Your task to perform on an android device: open app "Indeed Job Search" (install if not already installed) Image 0: 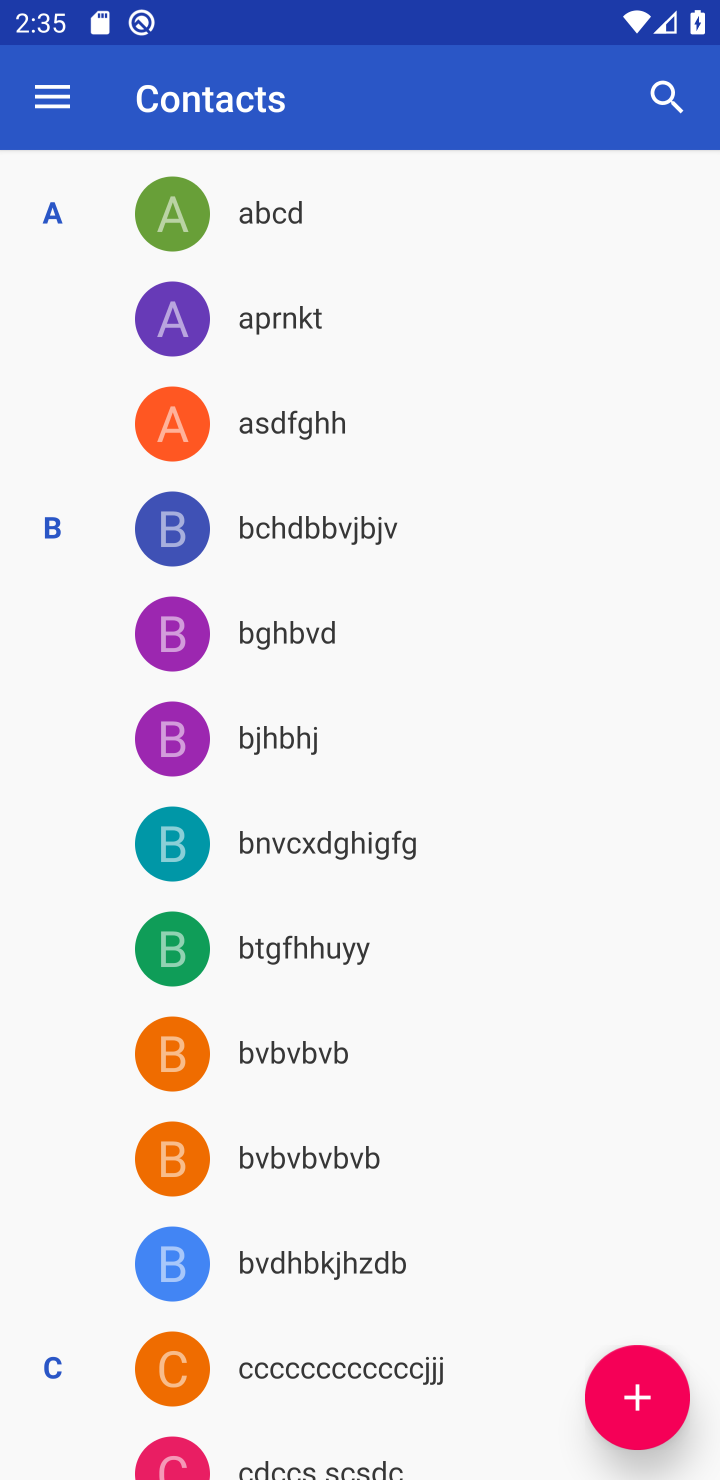
Step 0: press home button
Your task to perform on an android device: open app "Indeed Job Search" (install if not already installed) Image 1: 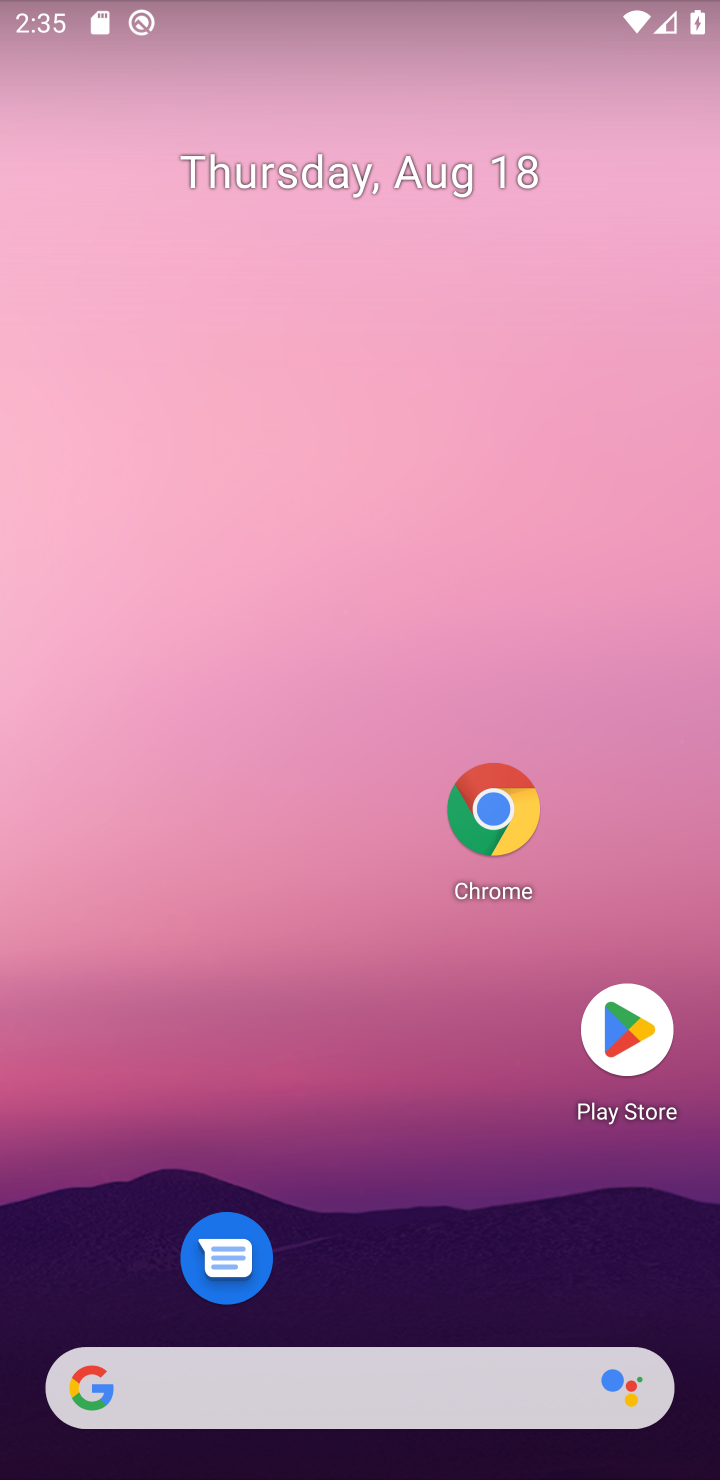
Step 1: click (623, 1000)
Your task to perform on an android device: open app "Indeed Job Search" (install if not already installed) Image 2: 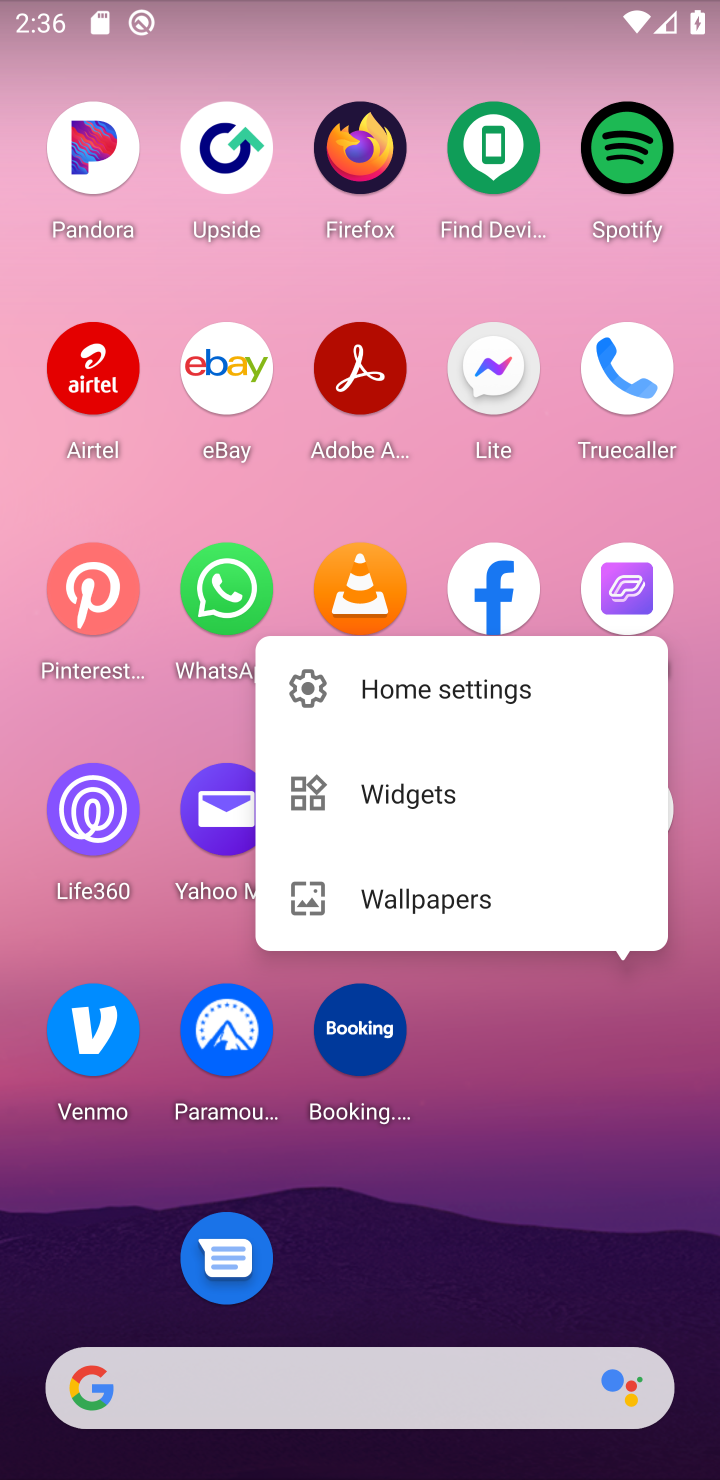
Step 2: press home button
Your task to perform on an android device: open app "Indeed Job Search" (install if not already installed) Image 3: 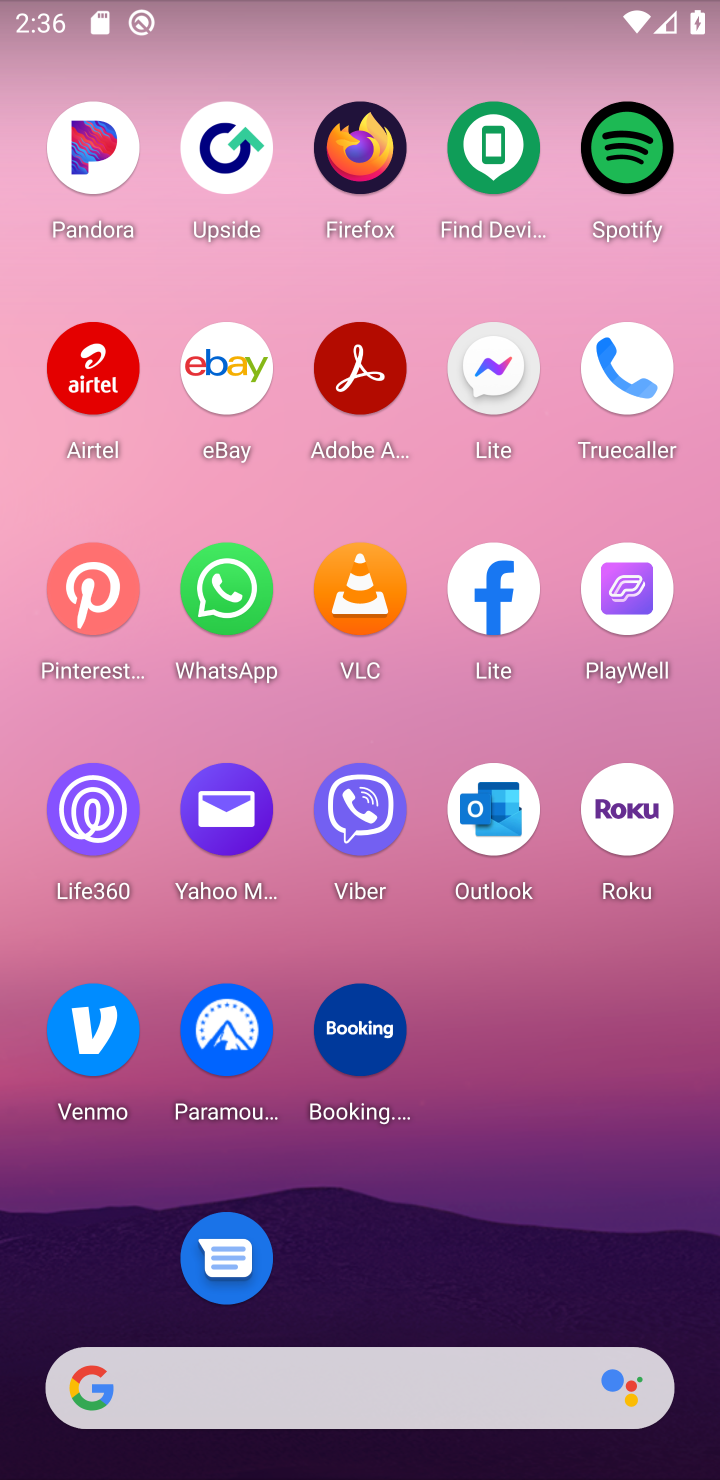
Step 3: press home button
Your task to perform on an android device: open app "Indeed Job Search" (install if not already installed) Image 4: 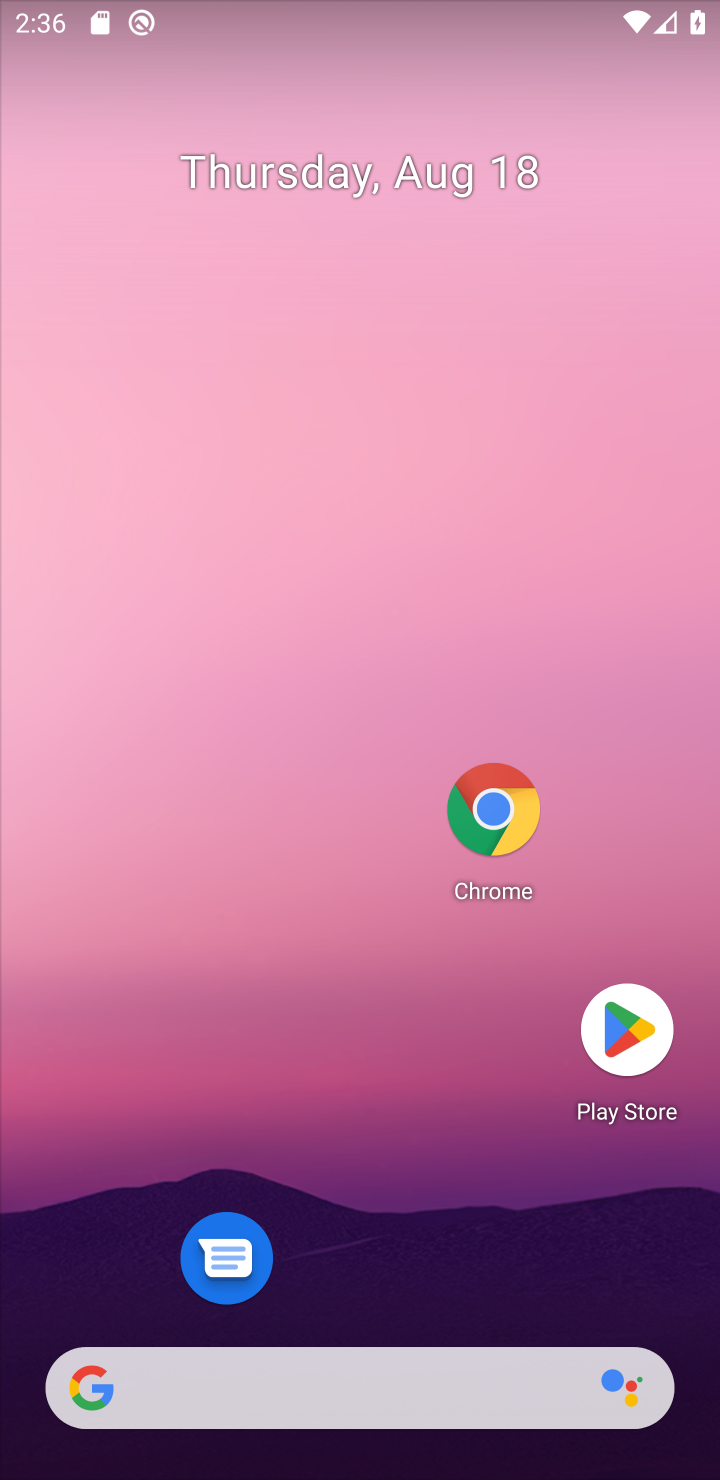
Step 4: click (614, 1011)
Your task to perform on an android device: open app "Indeed Job Search" (install if not already installed) Image 5: 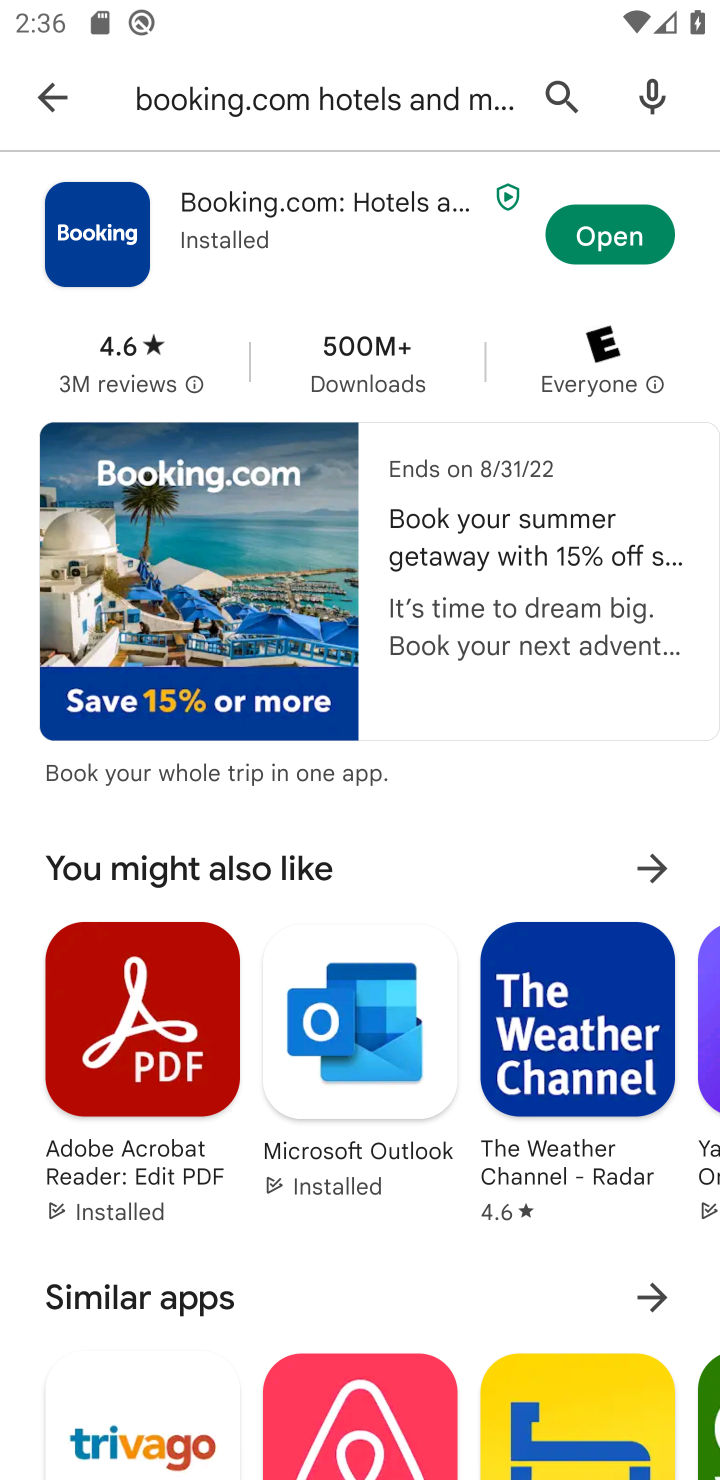
Step 5: click (60, 98)
Your task to perform on an android device: open app "Indeed Job Search" (install if not already installed) Image 6: 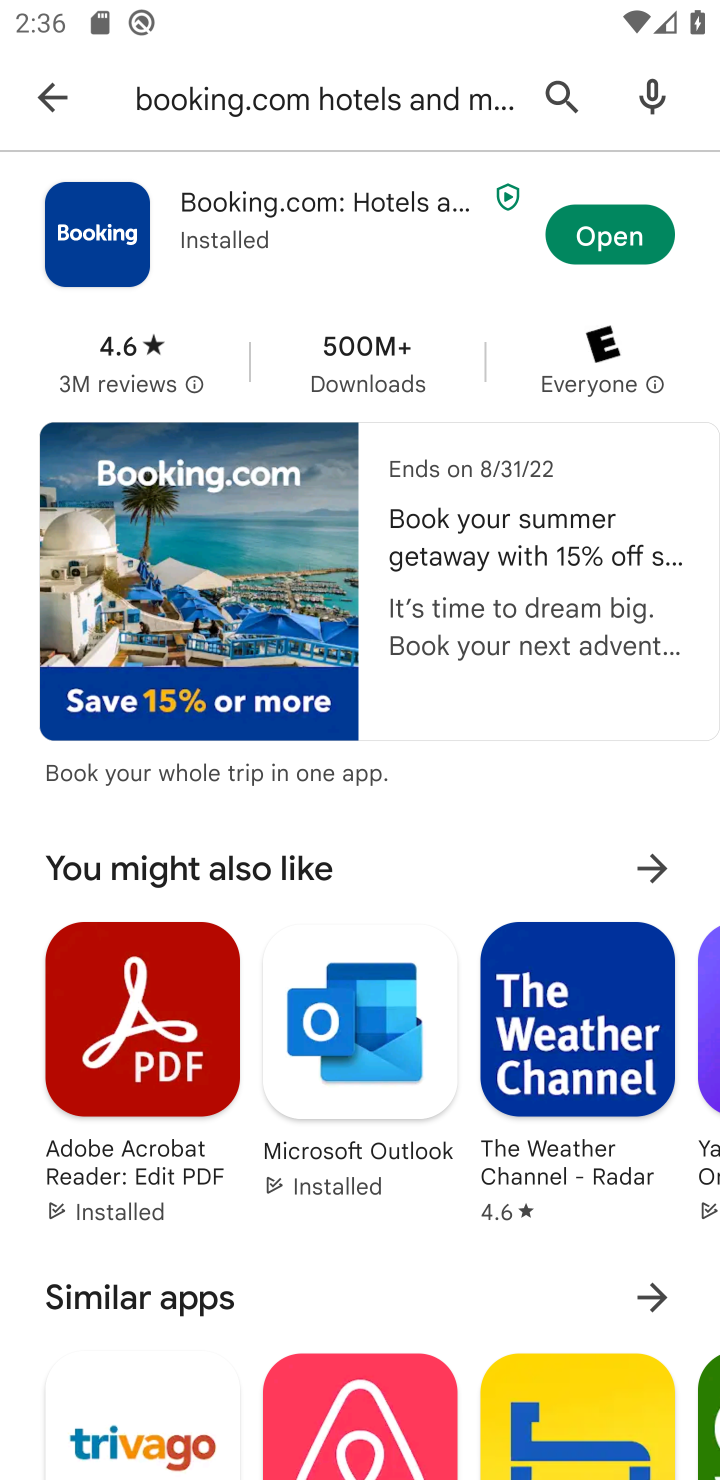
Step 6: click (545, 90)
Your task to perform on an android device: open app "Indeed Job Search" (install if not already installed) Image 7: 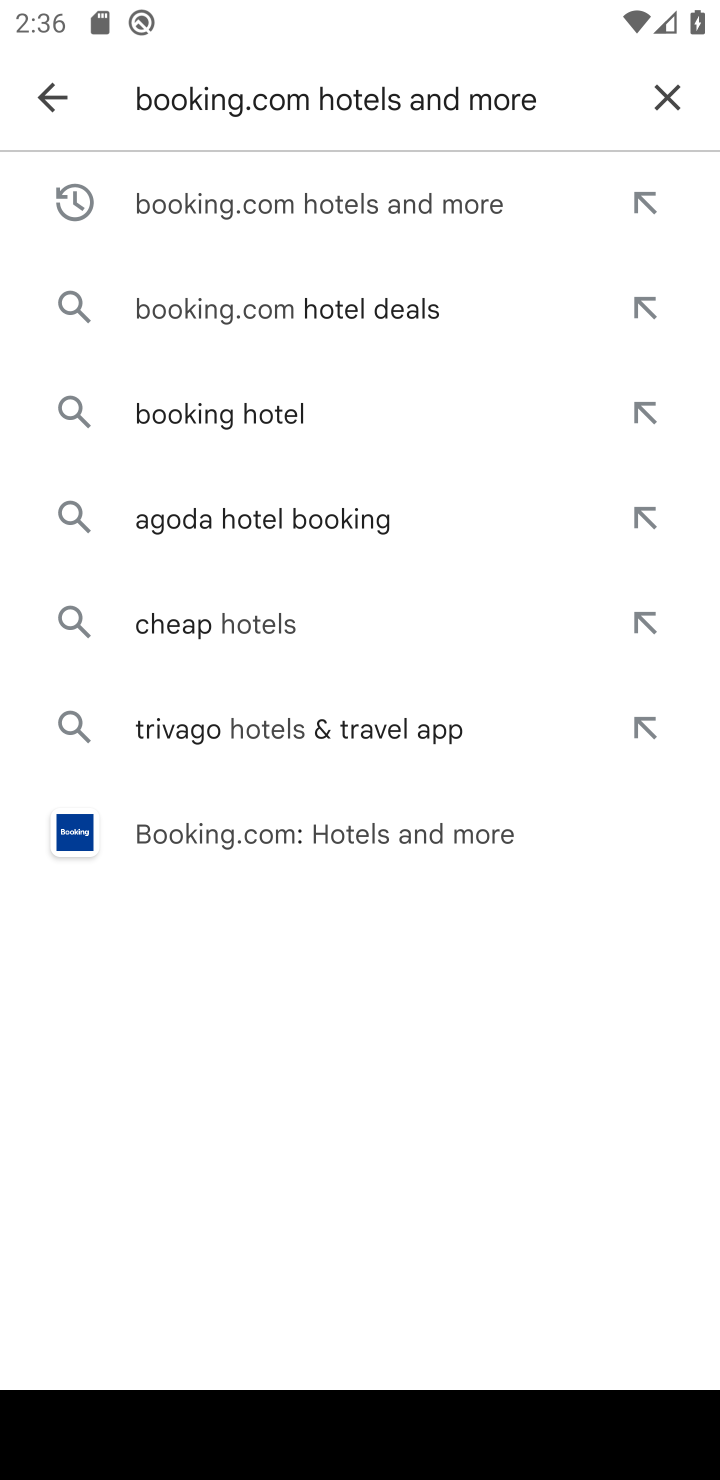
Step 7: click (670, 94)
Your task to perform on an android device: open app "Indeed Job Search" (install if not already installed) Image 8: 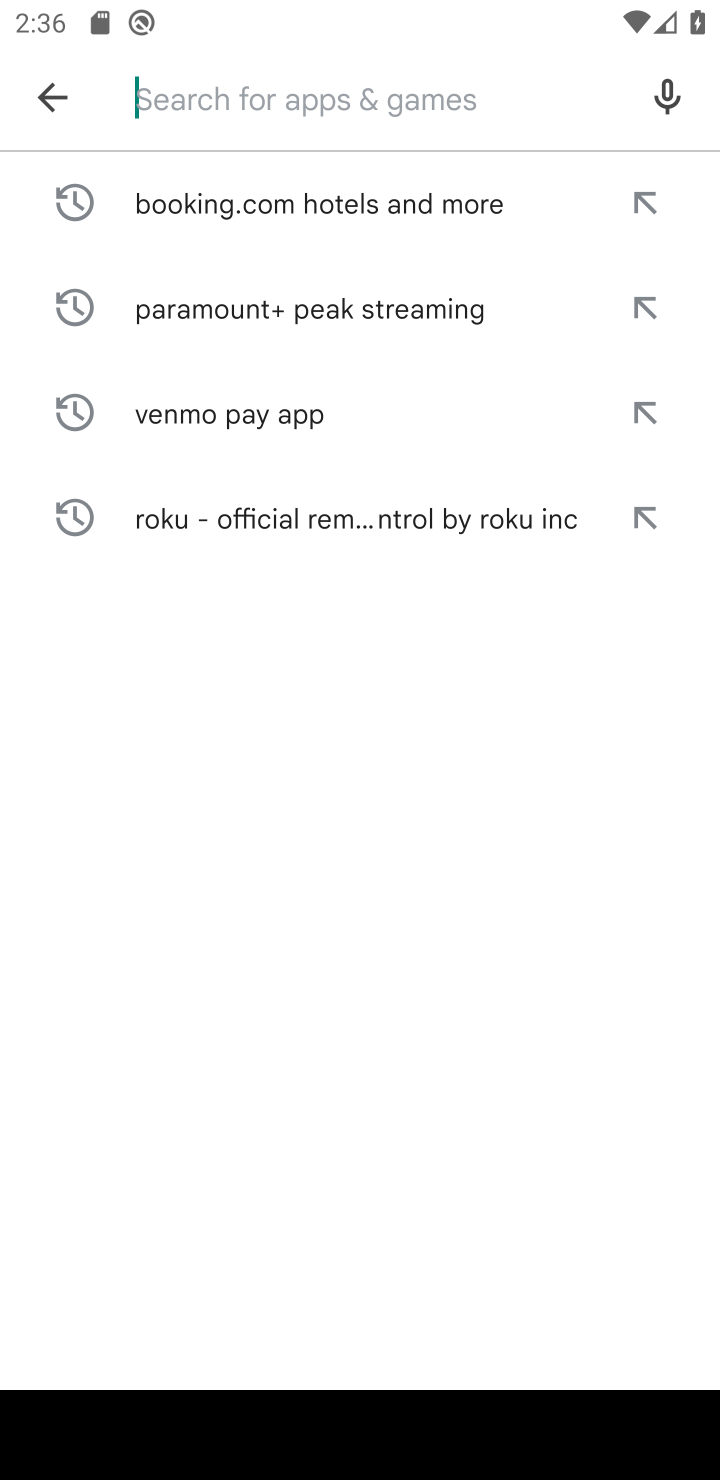
Step 8: click (294, 74)
Your task to perform on an android device: open app "Indeed Job Search" (install if not already installed) Image 9: 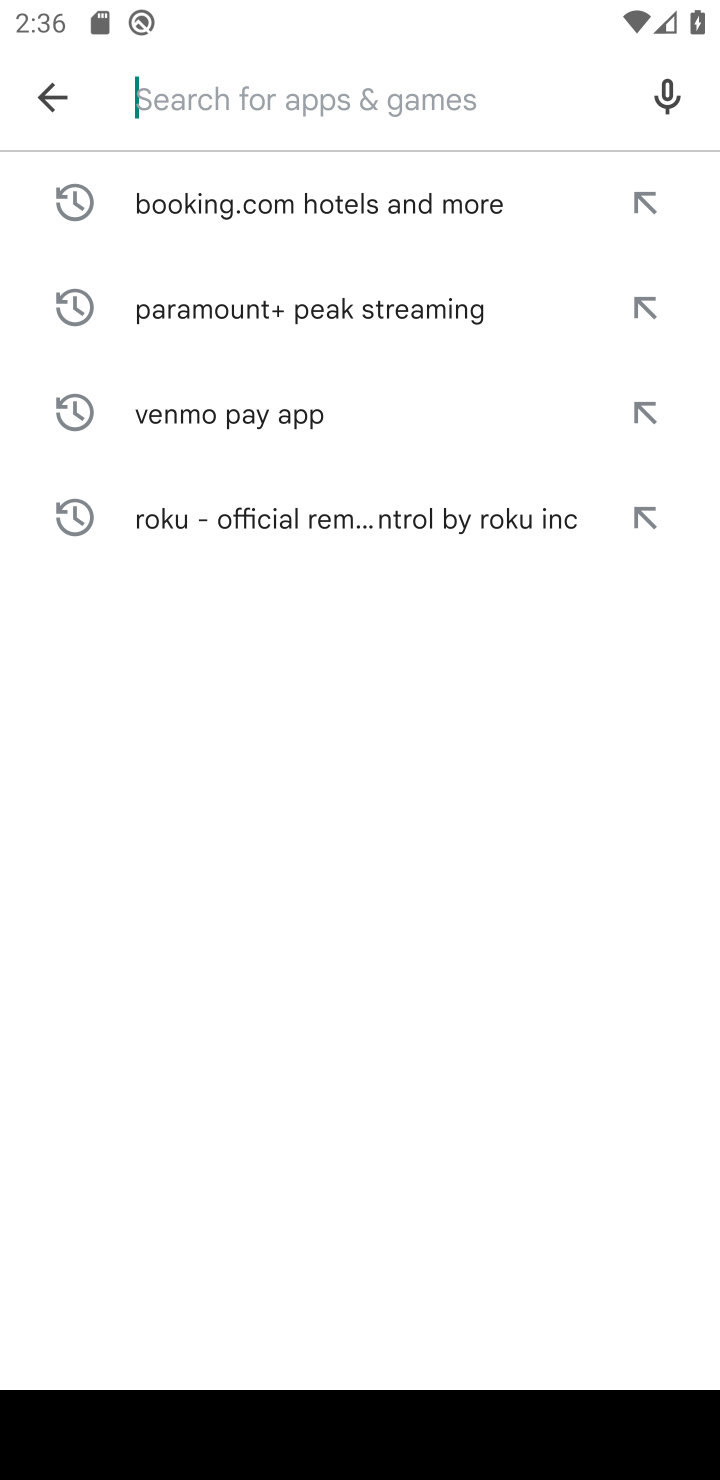
Step 9: type "Indeed Job Search "
Your task to perform on an android device: open app "Indeed Job Search" (install if not already installed) Image 10: 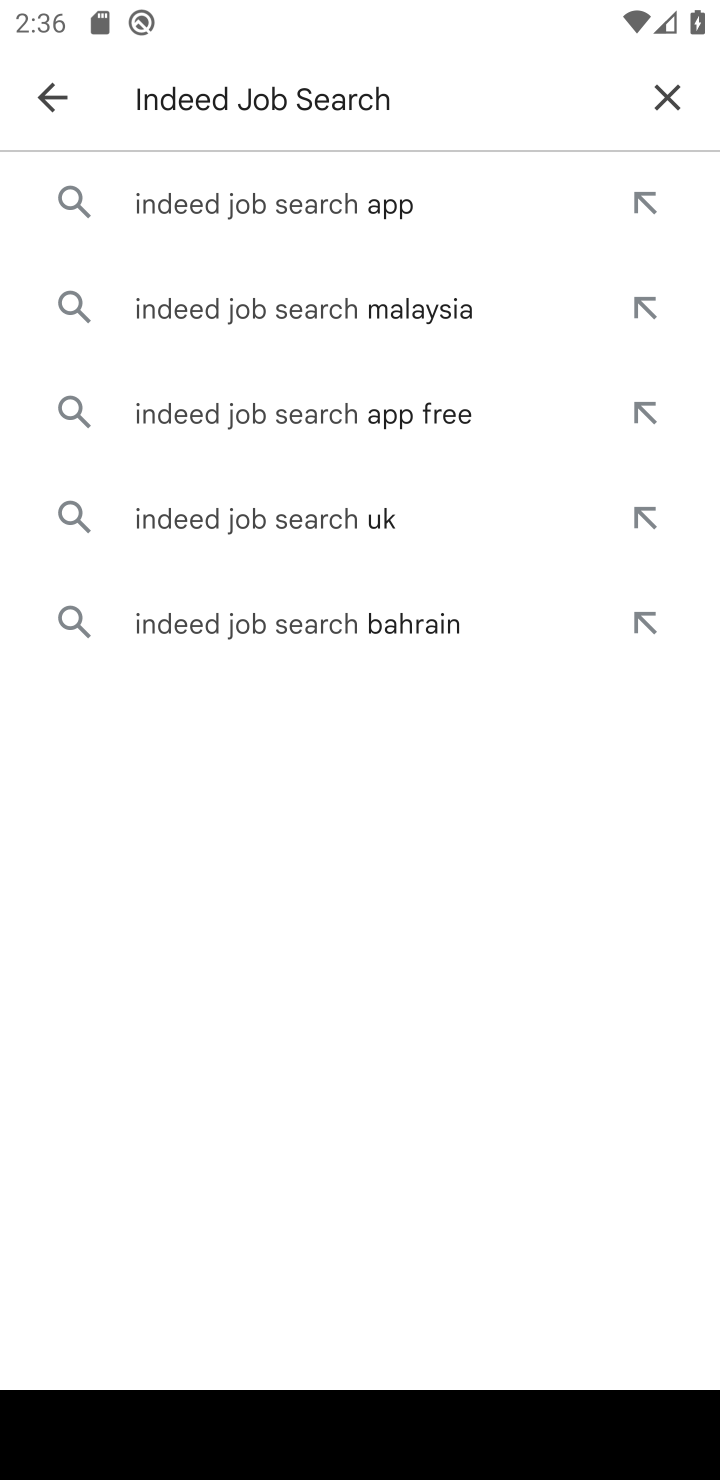
Step 10: click (263, 191)
Your task to perform on an android device: open app "Indeed Job Search" (install if not already installed) Image 11: 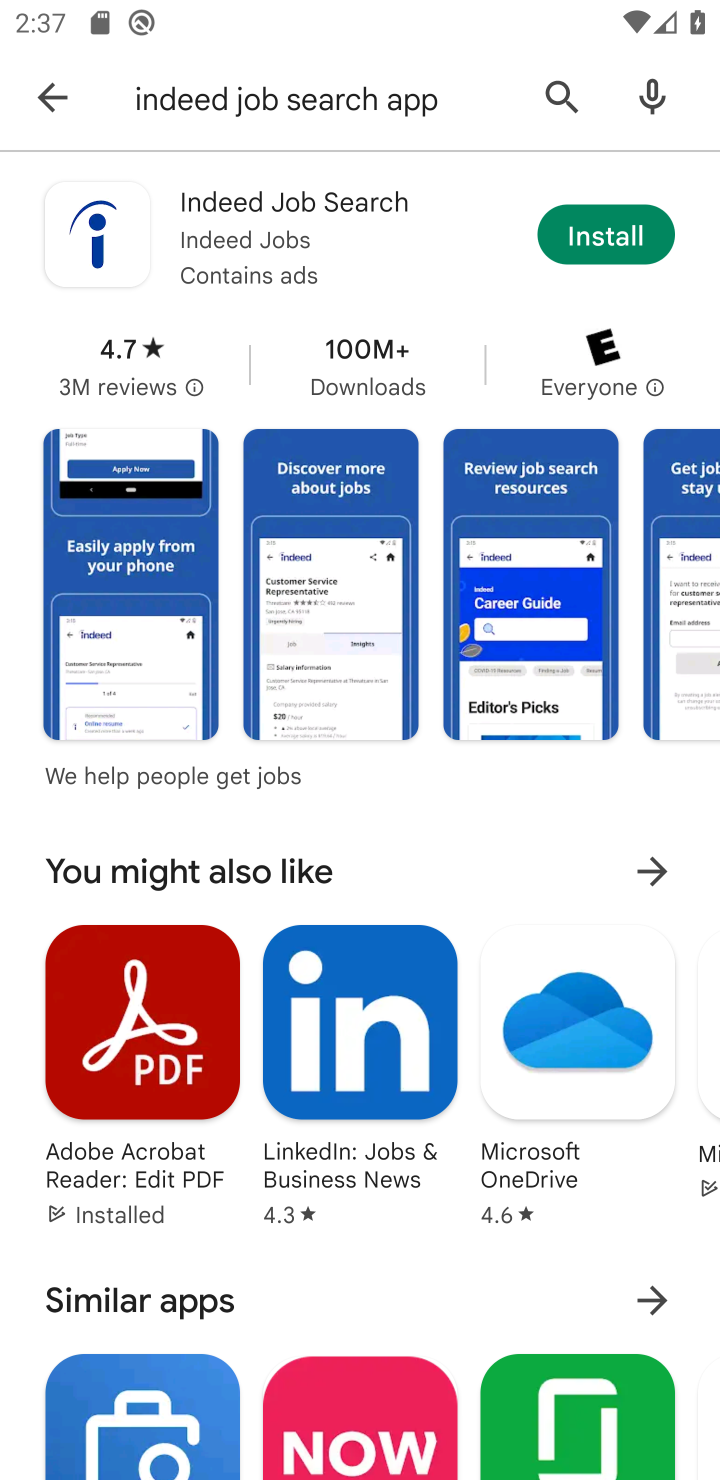
Step 11: click (579, 210)
Your task to perform on an android device: open app "Indeed Job Search" (install if not already installed) Image 12: 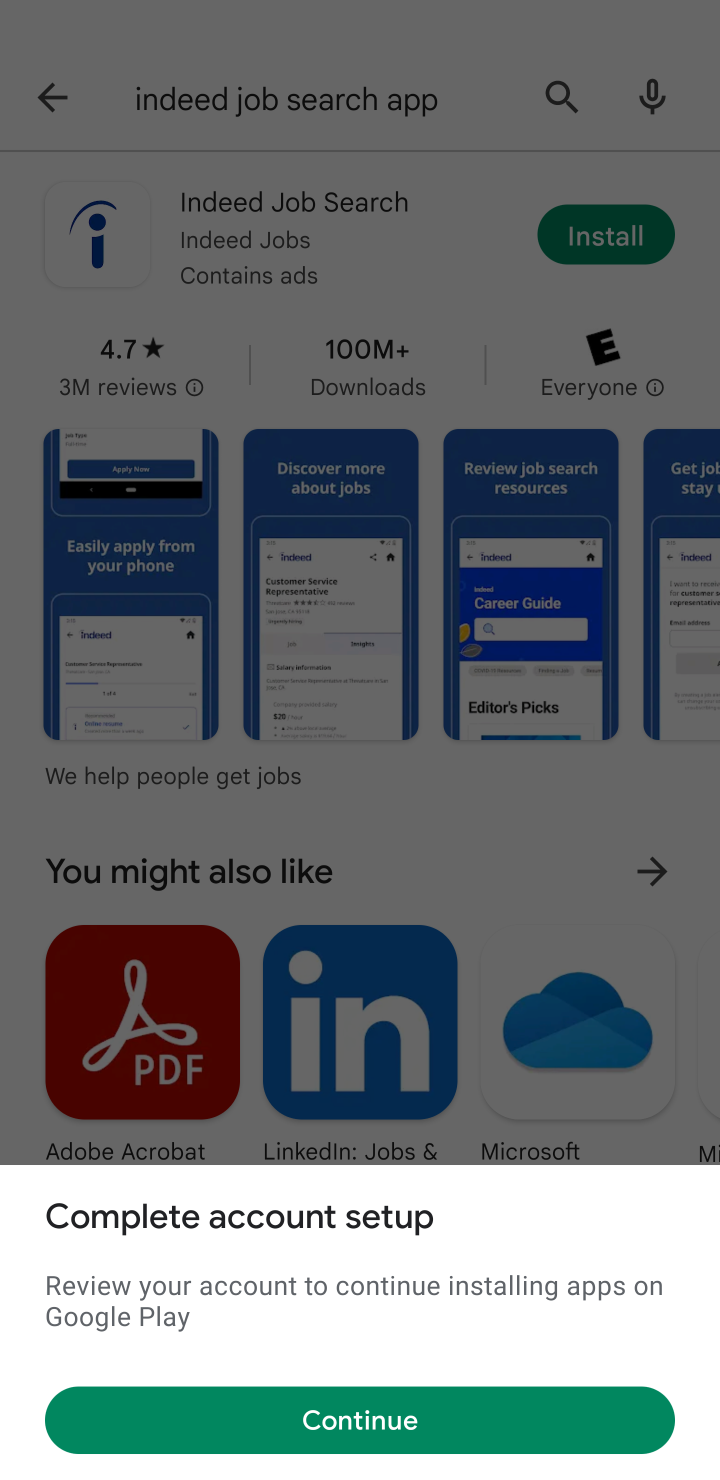
Step 12: task complete